Your task to perform on an android device: check storage Image 0: 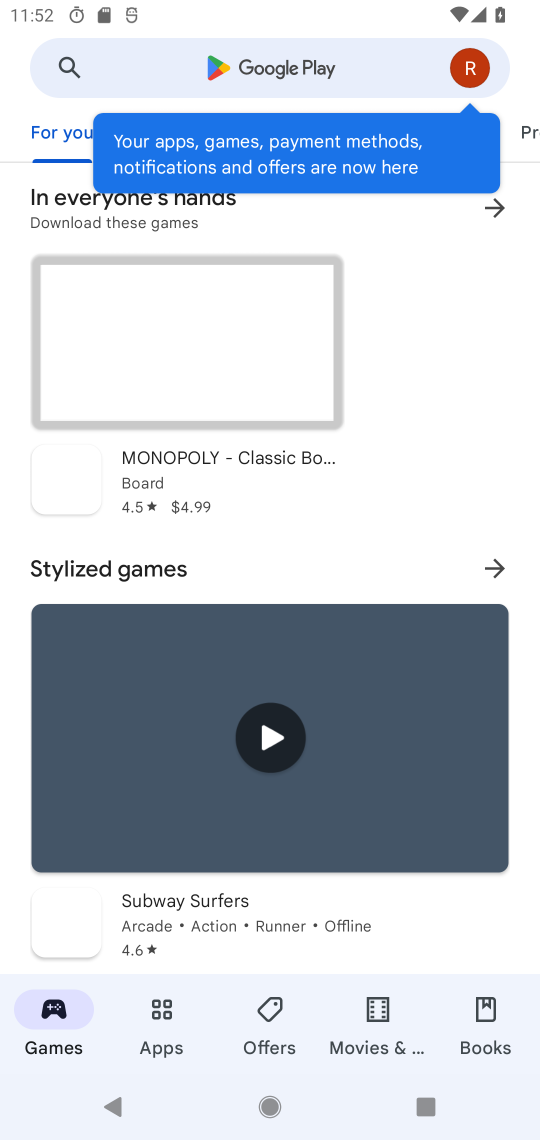
Step 0: press home button
Your task to perform on an android device: check storage Image 1: 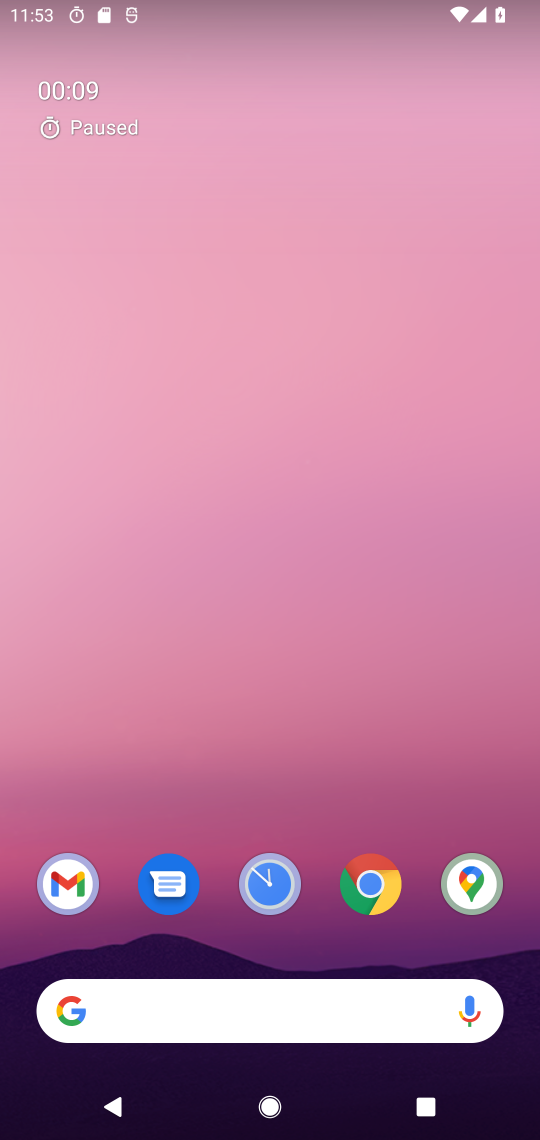
Step 1: drag from (241, 493) to (271, 147)
Your task to perform on an android device: check storage Image 2: 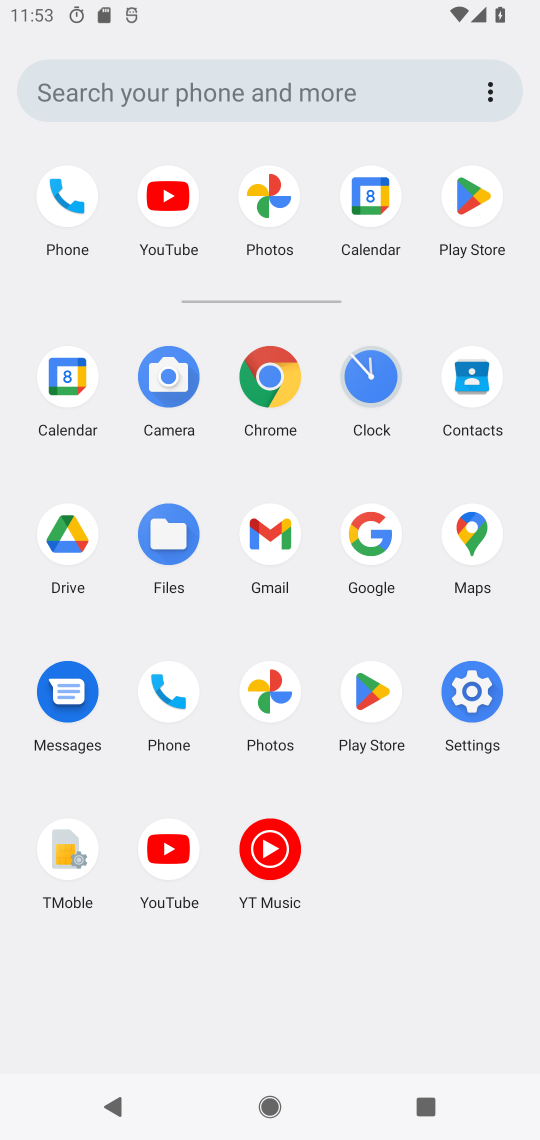
Step 2: click (473, 695)
Your task to perform on an android device: check storage Image 3: 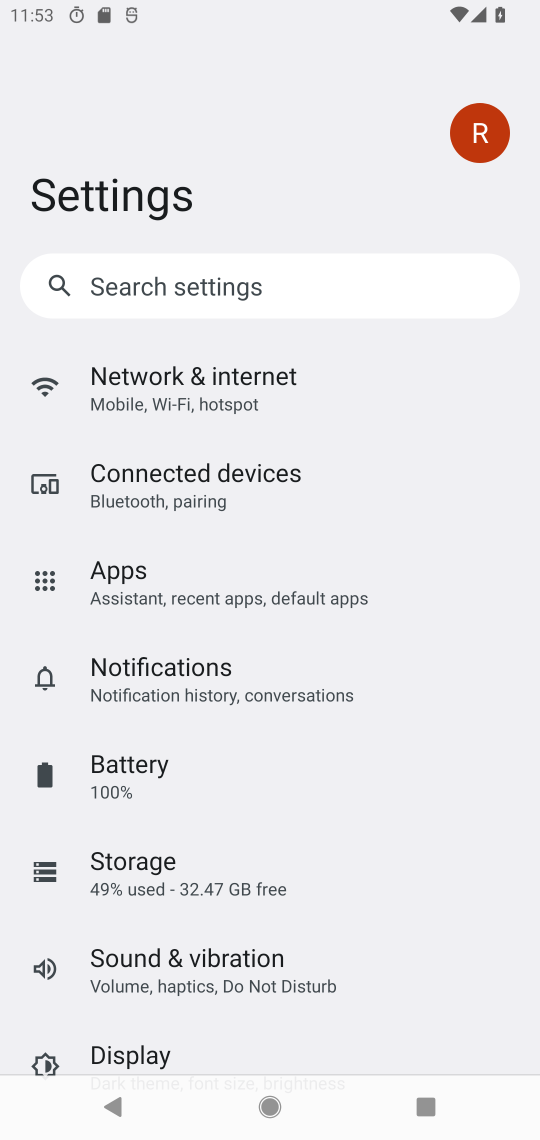
Step 3: click (154, 873)
Your task to perform on an android device: check storage Image 4: 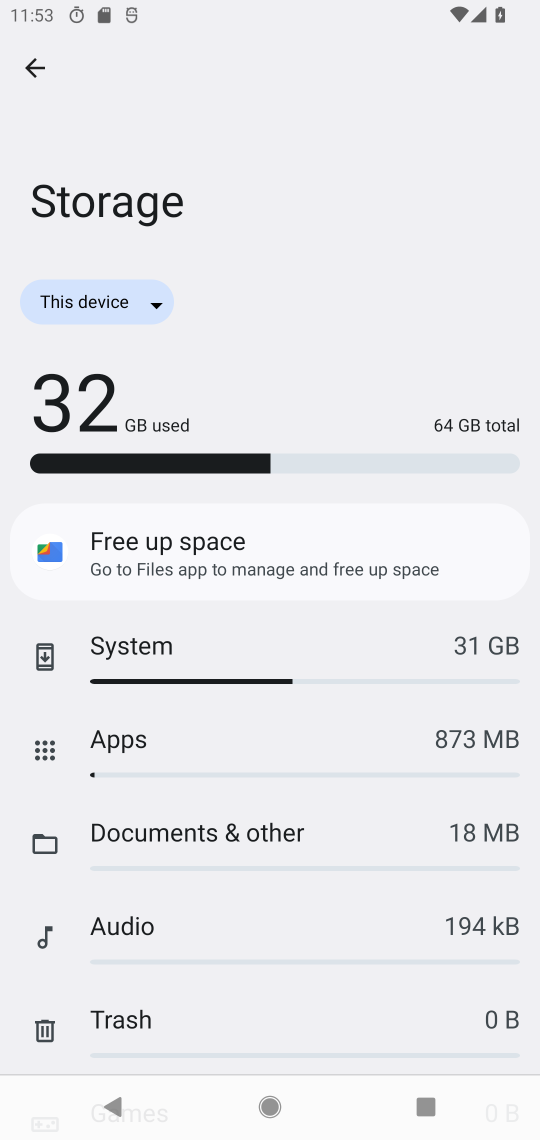
Step 4: task complete